Your task to perform on an android device: Search for vegetarian restaurants on Maps Image 0: 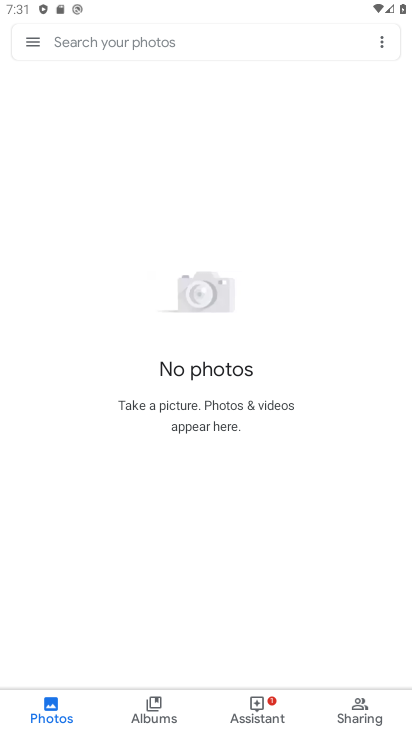
Step 0: press home button
Your task to perform on an android device: Search for vegetarian restaurants on Maps Image 1: 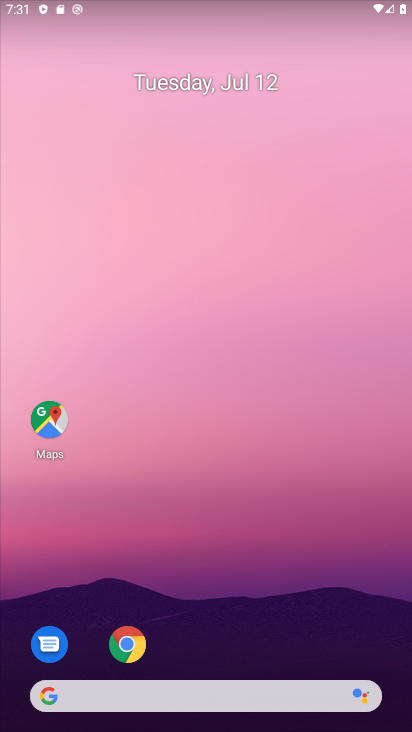
Step 1: click (57, 412)
Your task to perform on an android device: Search for vegetarian restaurants on Maps Image 2: 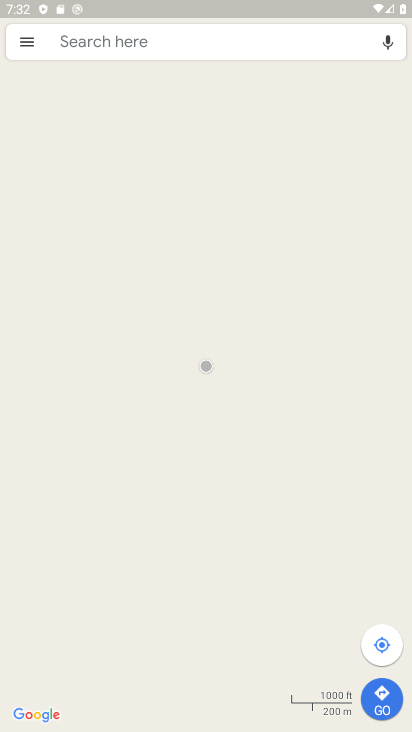
Step 2: click (219, 47)
Your task to perform on an android device: Search for vegetarian restaurants on Maps Image 3: 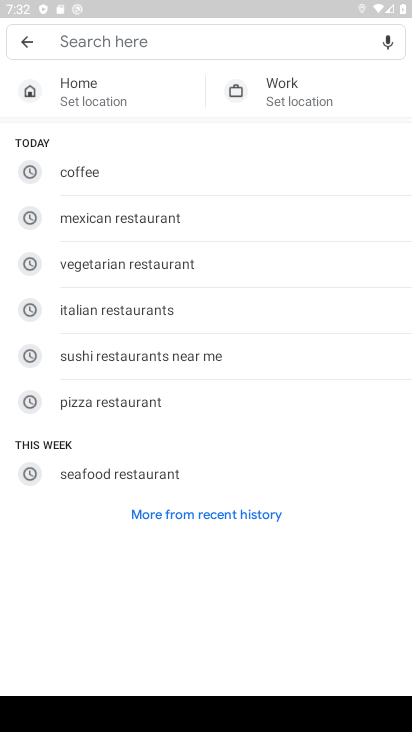
Step 3: click (130, 264)
Your task to perform on an android device: Search for vegetarian restaurants on Maps Image 4: 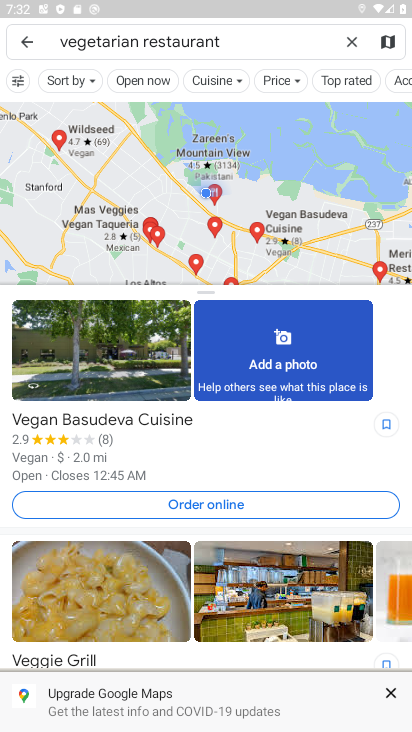
Step 4: task complete